Your task to perform on an android device: Go to internet settings Image 0: 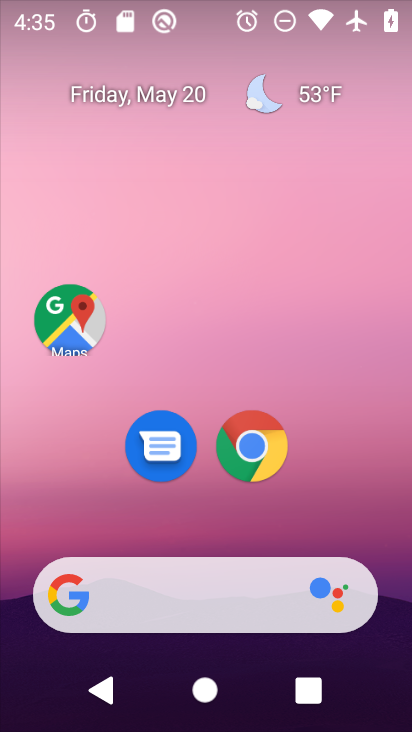
Step 0: drag from (381, 505) to (361, 88)
Your task to perform on an android device: Go to internet settings Image 1: 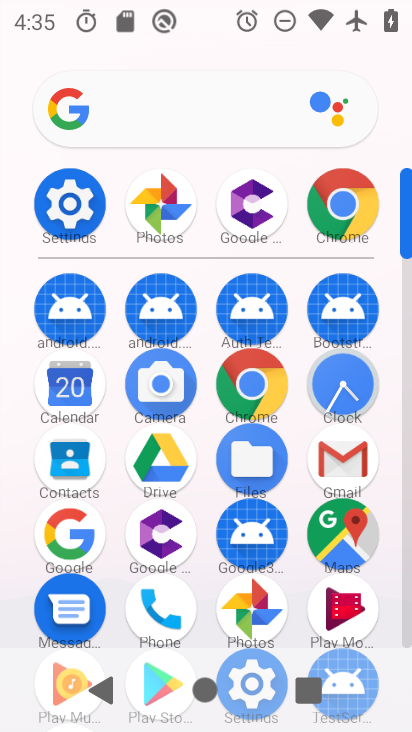
Step 1: drag from (397, 566) to (396, 287)
Your task to perform on an android device: Go to internet settings Image 2: 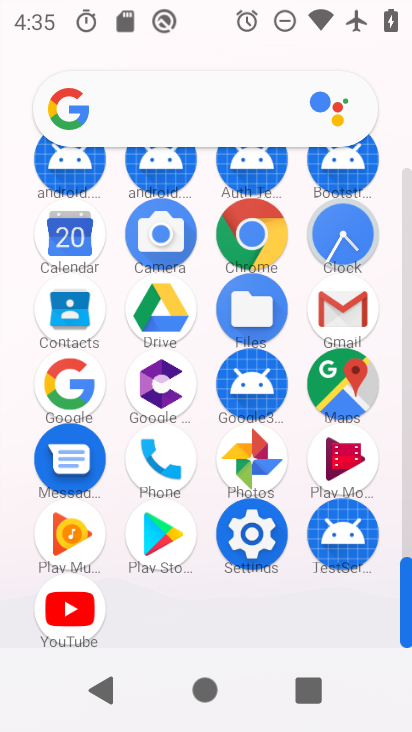
Step 2: drag from (380, 464) to (376, 698)
Your task to perform on an android device: Go to internet settings Image 3: 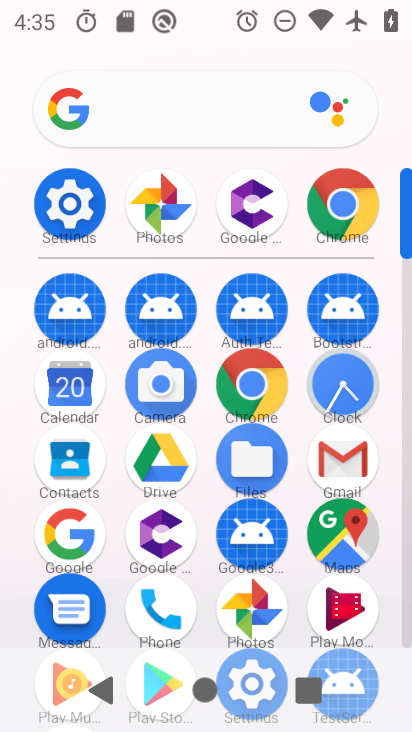
Step 3: click (63, 199)
Your task to perform on an android device: Go to internet settings Image 4: 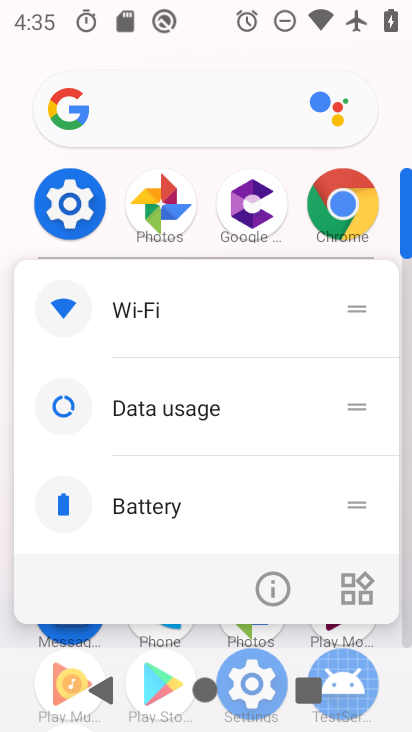
Step 4: click (56, 190)
Your task to perform on an android device: Go to internet settings Image 5: 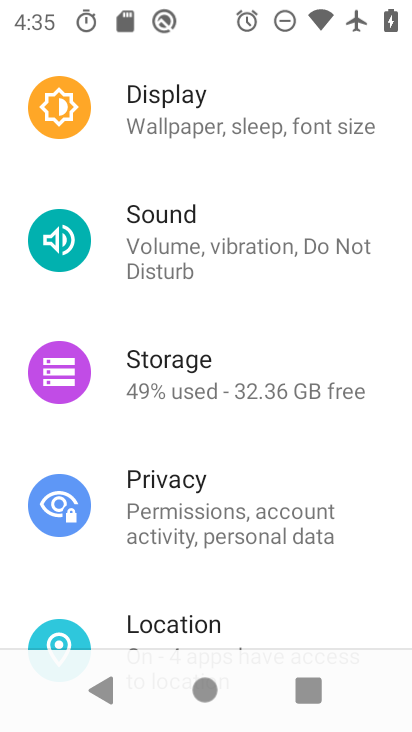
Step 5: drag from (223, 198) to (235, 642)
Your task to perform on an android device: Go to internet settings Image 6: 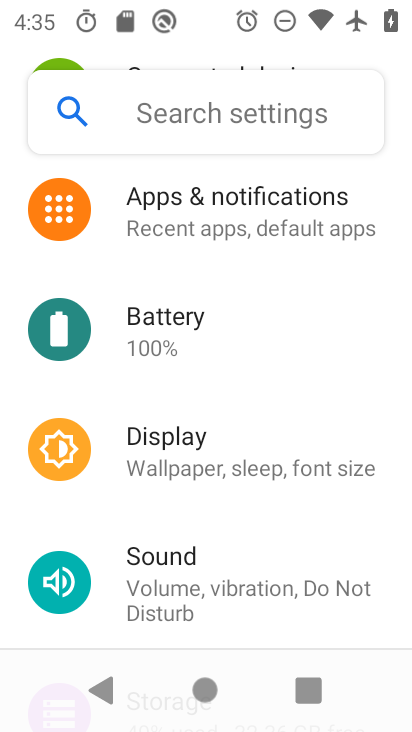
Step 6: drag from (184, 168) to (199, 604)
Your task to perform on an android device: Go to internet settings Image 7: 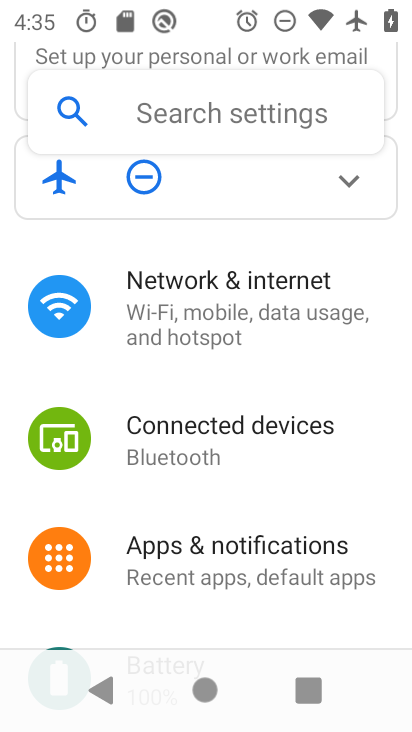
Step 7: click (133, 317)
Your task to perform on an android device: Go to internet settings Image 8: 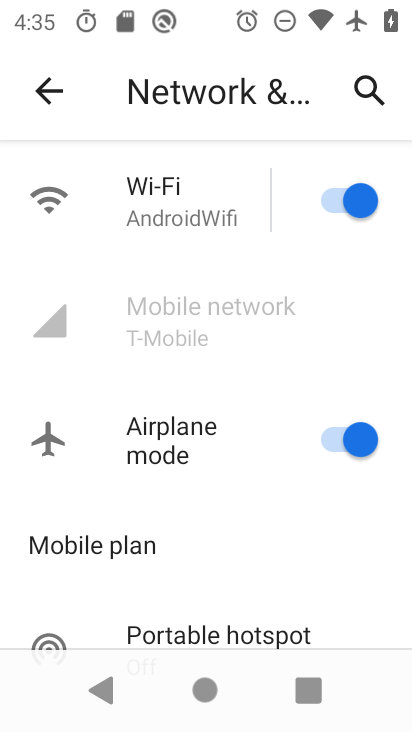
Step 8: task complete